Your task to perform on an android device: What's the weather going to be tomorrow? Image 0: 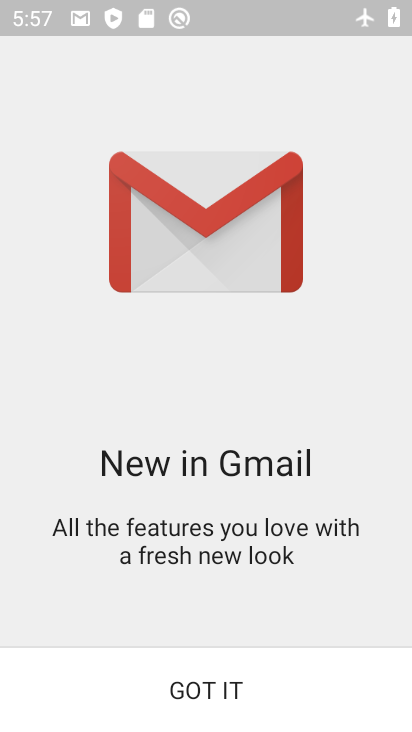
Step 0: press home button
Your task to perform on an android device: What's the weather going to be tomorrow? Image 1: 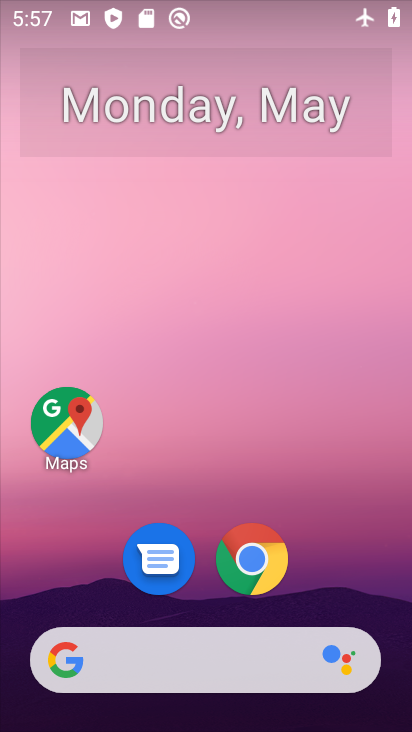
Step 1: click (210, 666)
Your task to perform on an android device: What's the weather going to be tomorrow? Image 2: 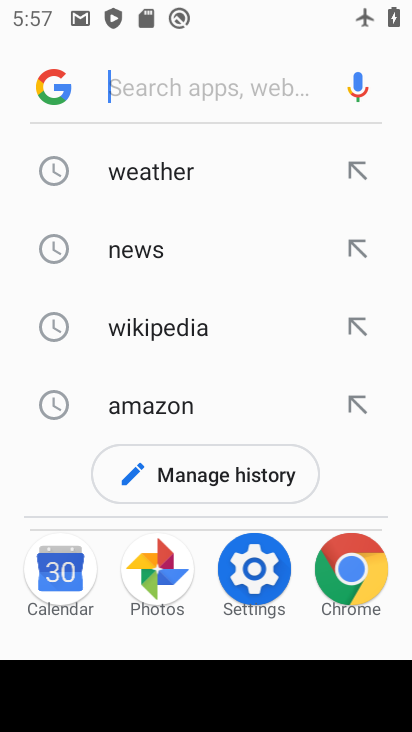
Step 2: click (153, 171)
Your task to perform on an android device: What's the weather going to be tomorrow? Image 3: 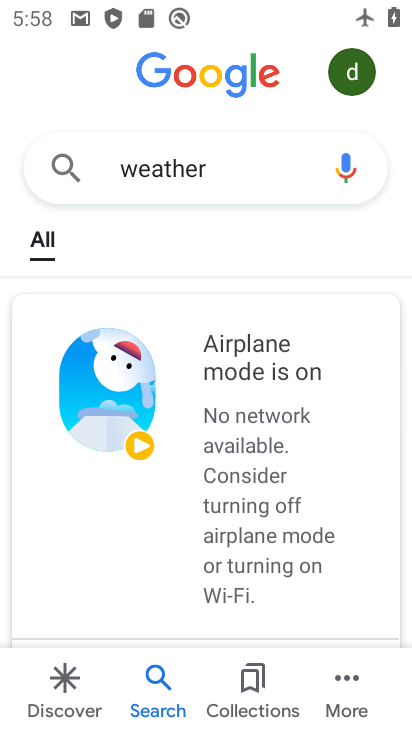
Step 3: drag from (175, 533) to (155, 249)
Your task to perform on an android device: What's the weather going to be tomorrow? Image 4: 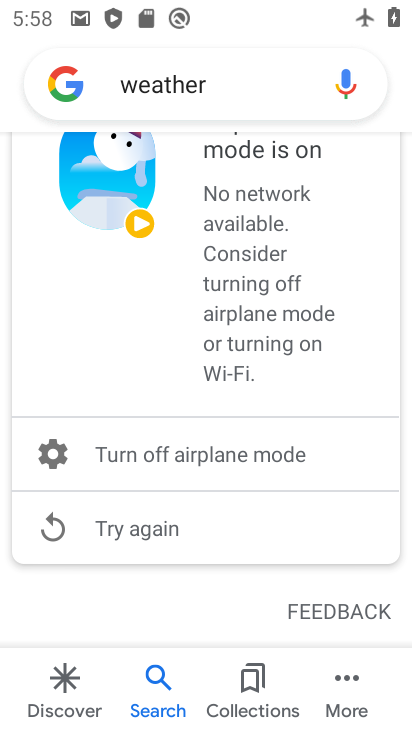
Step 4: click (38, 526)
Your task to perform on an android device: What's the weather going to be tomorrow? Image 5: 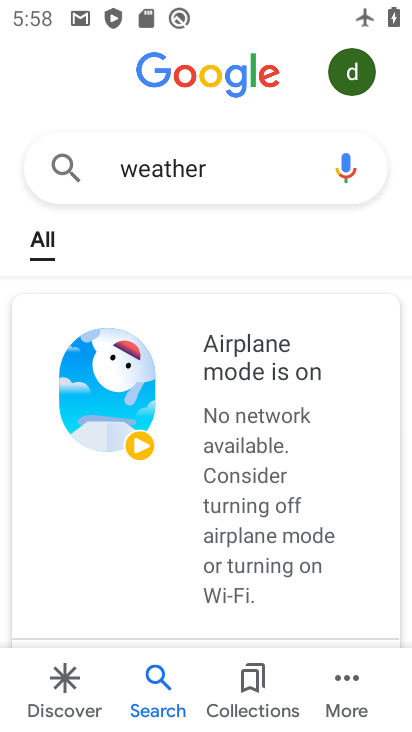
Step 5: task complete